Your task to perform on an android device: read, delete, or share a saved page in the chrome app Image 0: 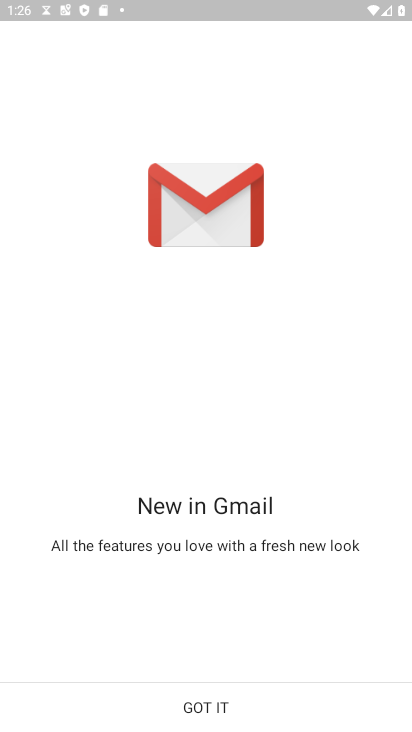
Step 0: press home button
Your task to perform on an android device: read, delete, or share a saved page in the chrome app Image 1: 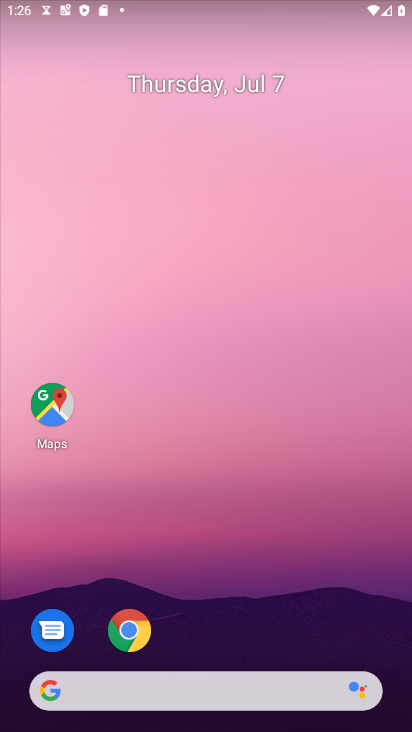
Step 1: click (137, 634)
Your task to perform on an android device: read, delete, or share a saved page in the chrome app Image 2: 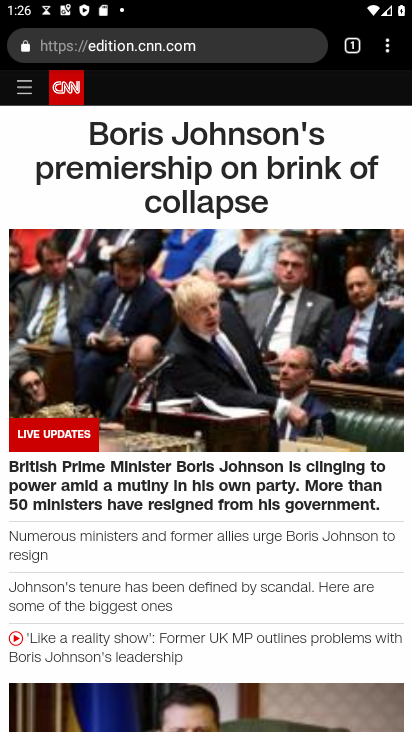
Step 2: click (391, 47)
Your task to perform on an android device: read, delete, or share a saved page in the chrome app Image 3: 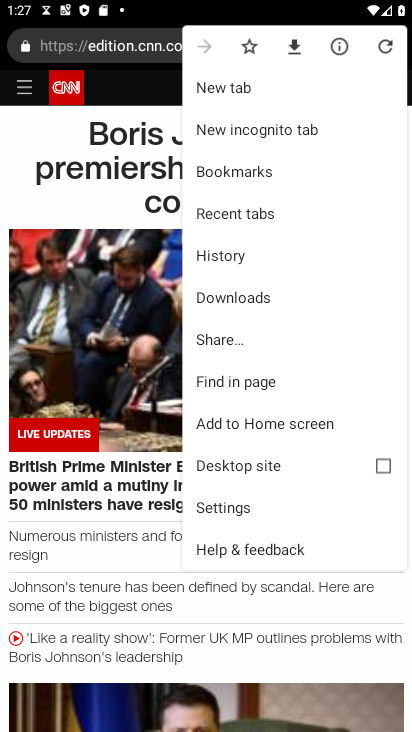
Step 3: click (264, 299)
Your task to perform on an android device: read, delete, or share a saved page in the chrome app Image 4: 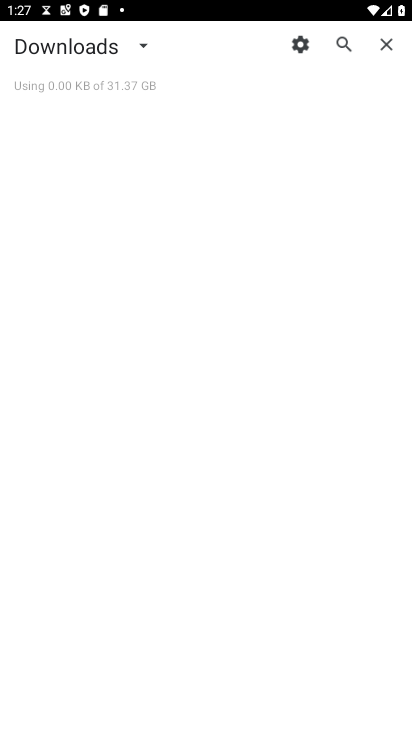
Step 4: click (112, 55)
Your task to perform on an android device: read, delete, or share a saved page in the chrome app Image 5: 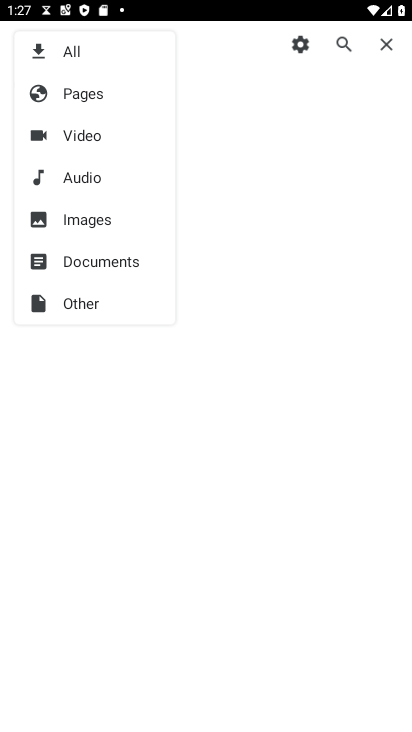
Step 5: click (91, 91)
Your task to perform on an android device: read, delete, or share a saved page in the chrome app Image 6: 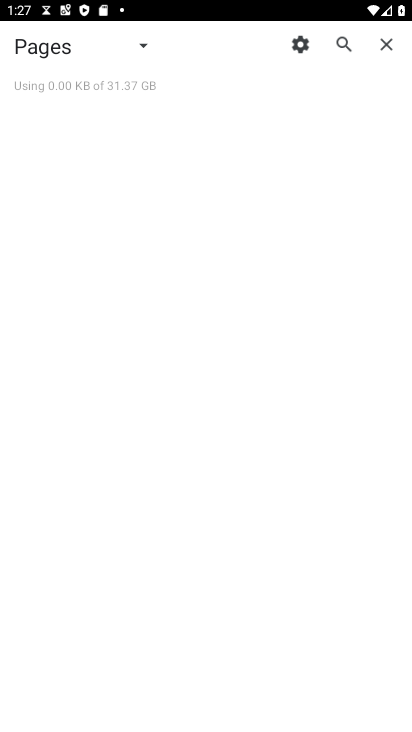
Step 6: task complete